Your task to perform on an android device: turn on sleep mode Image 0: 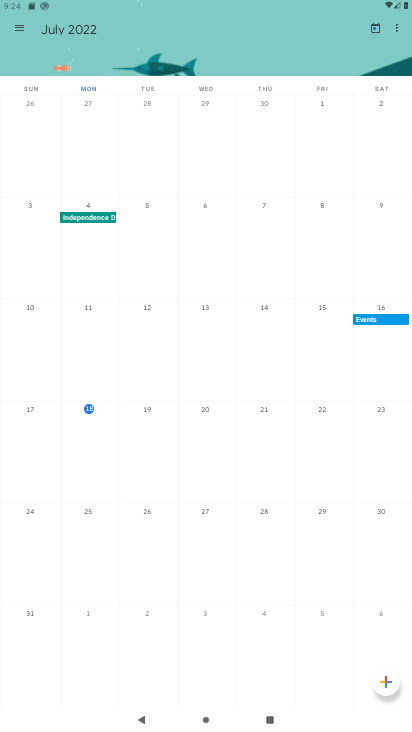
Step 0: press home button
Your task to perform on an android device: turn on sleep mode Image 1: 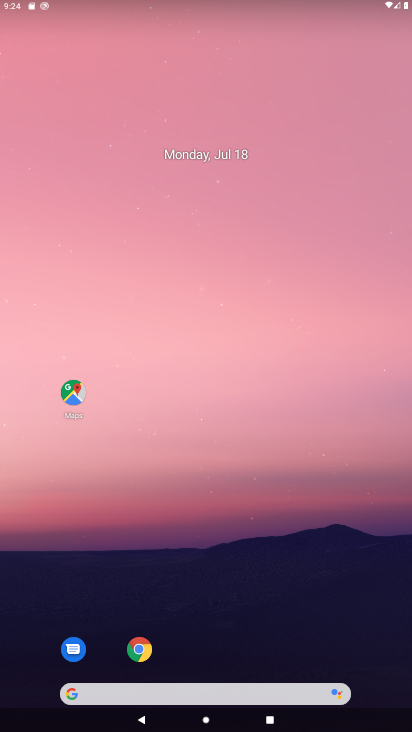
Step 1: drag from (312, 515) to (230, 27)
Your task to perform on an android device: turn on sleep mode Image 2: 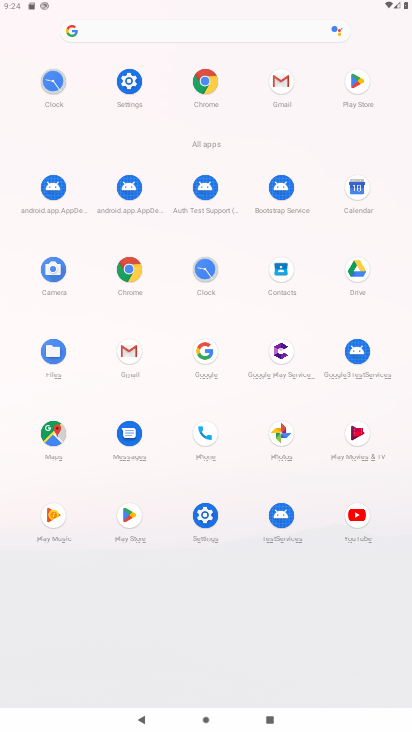
Step 2: click (129, 89)
Your task to perform on an android device: turn on sleep mode Image 3: 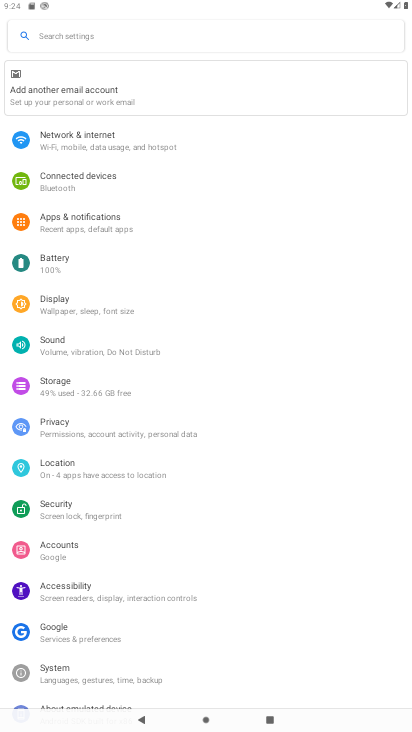
Step 3: click (79, 308)
Your task to perform on an android device: turn on sleep mode Image 4: 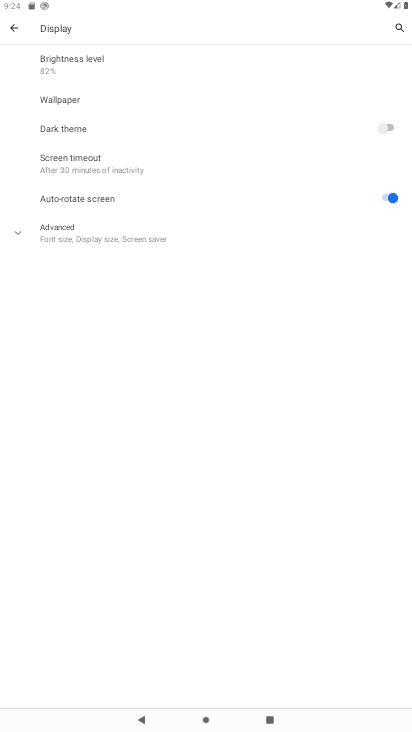
Step 4: click (84, 169)
Your task to perform on an android device: turn on sleep mode Image 5: 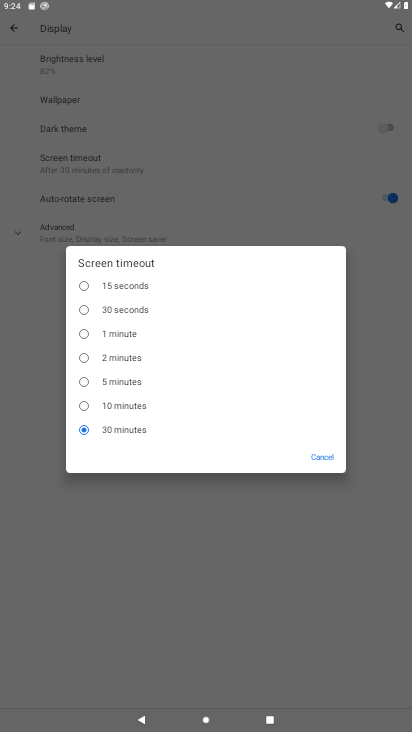
Step 5: task complete